Your task to perform on an android device: Open accessibility settings Image 0: 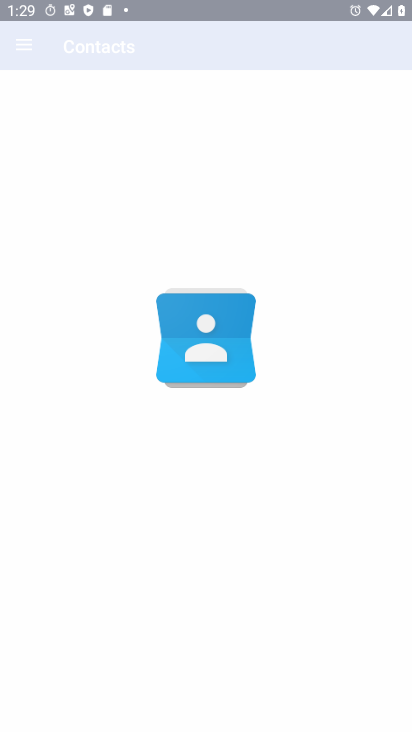
Step 0: drag from (18, 691) to (155, 210)
Your task to perform on an android device: Open accessibility settings Image 1: 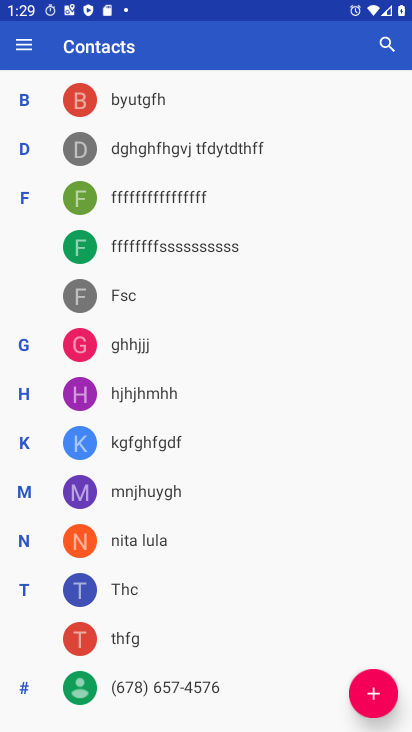
Step 1: press home button
Your task to perform on an android device: Open accessibility settings Image 2: 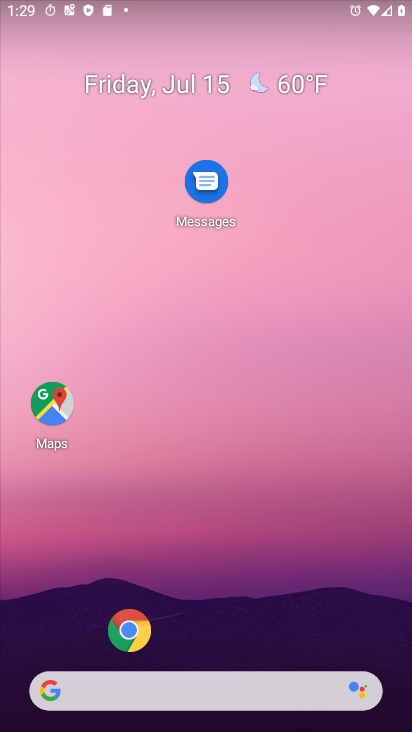
Step 2: drag from (11, 683) to (407, 0)
Your task to perform on an android device: Open accessibility settings Image 3: 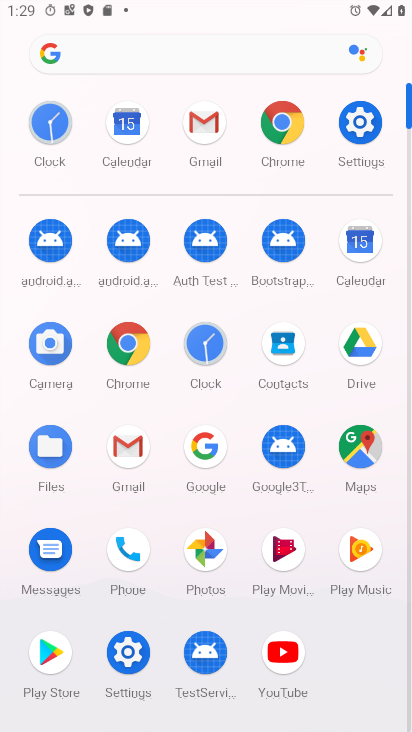
Step 3: click (126, 679)
Your task to perform on an android device: Open accessibility settings Image 4: 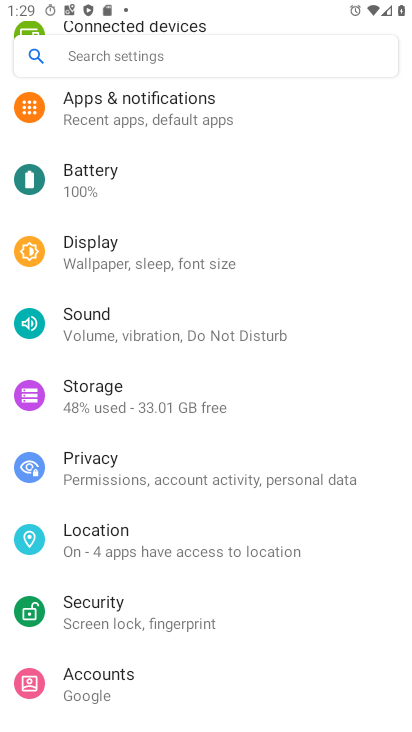
Step 4: drag from (220, 633) to (322, 144)
Your task to perform on an android device: Open accessibility settings Image 5: 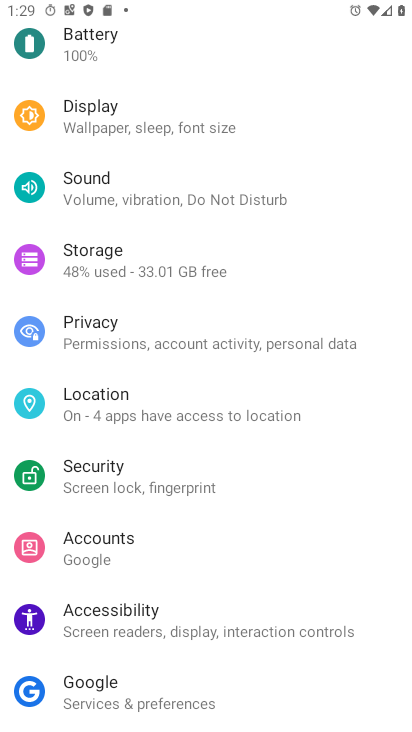
Step 5: drag from (304, 129) to (302, 629)
Your task to perform on an android device: Open accessibility settings Image 6: 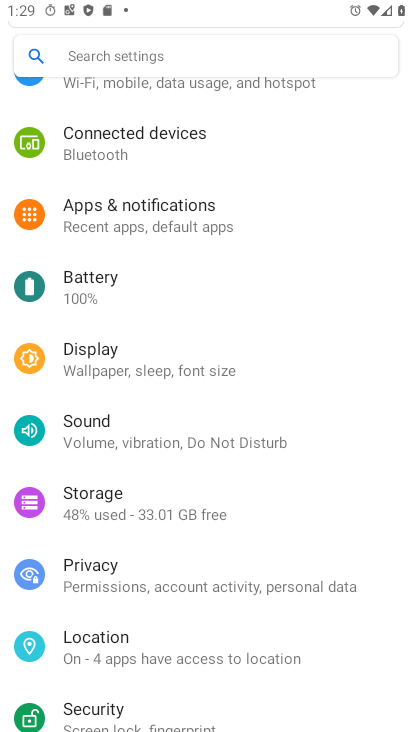
Step 6: drag from (303, 265) to (280, 718)
Your task to perform on an android device: Open accessibility settings Image 7: 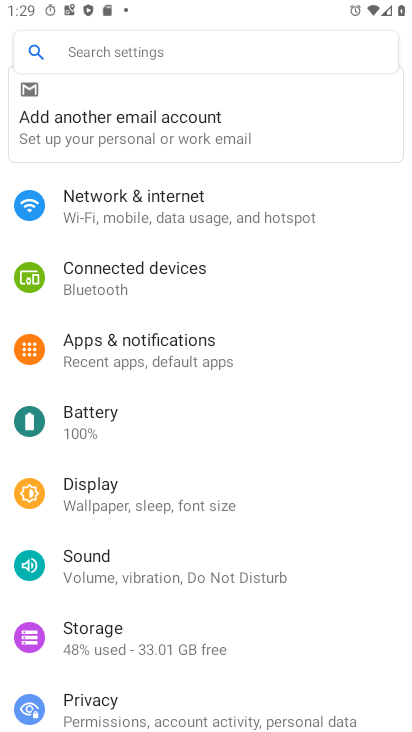
Step 7: drag from (344, 640) to (356, 314)
Your task to perform on an android device: Open accessibility settings Image 8: 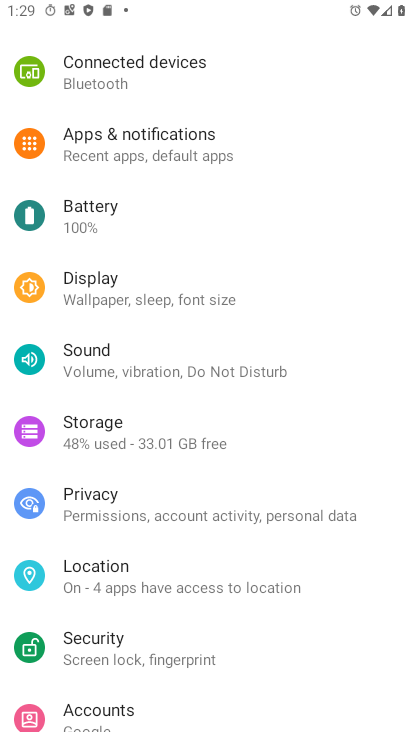
Step 8: drag from (343, 672) to (367, 376)
Your task to perform on an android device: Open accessibility settings Image 9: 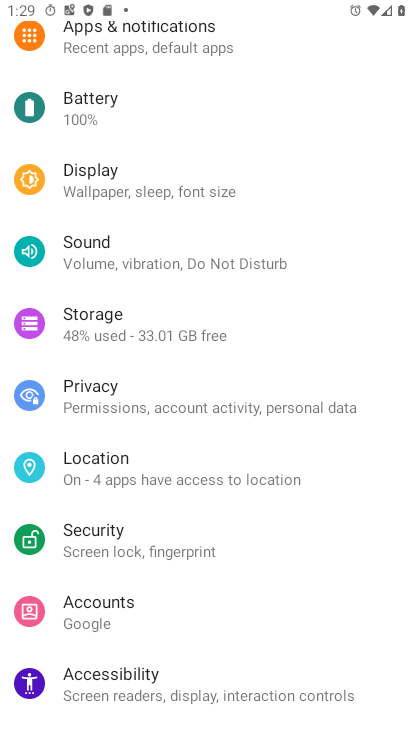
Step 9: click (179, 669)
Your task to perform on an android device: Open accessibility settings Image 10: 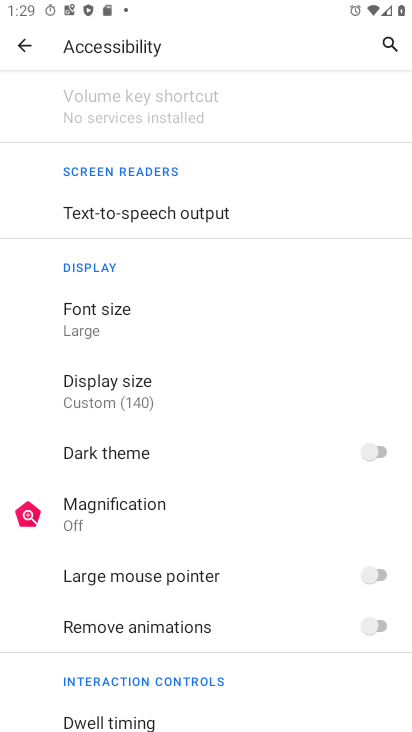
Step 10: task complete